Your task to perform on an android device: move an email to a new category in the gmail app Image 0: 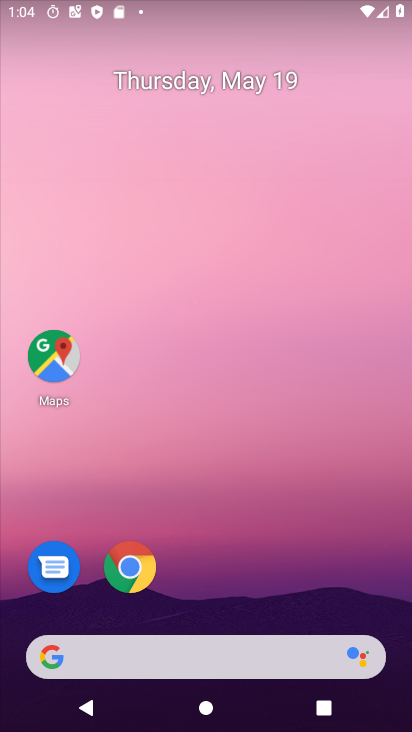
Step 0: press home button
Your task to perform on an android device: move an email to a new category in the gmail app Image 1: 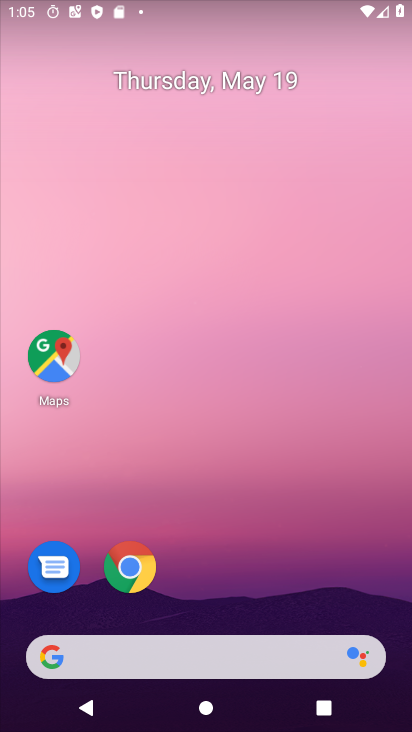
Step 1: drag from (195, 648) to (371, 245)
Your task to perform on an android device: move an email to a new category in the gmail app Image 2: 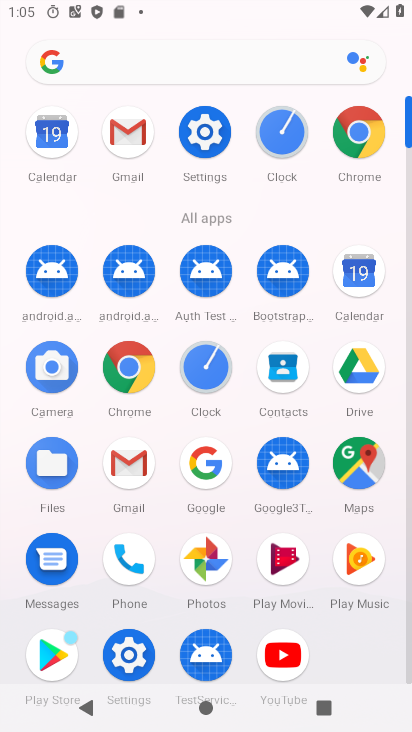
Step 2: click (130, 149)
Your task to perform on an android device: move an email to a new category in the gmail app Image 3: 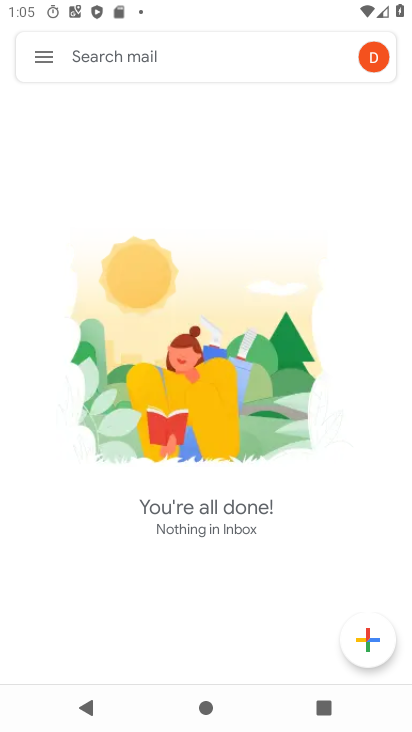
Step 3: task complete